Your task to perform on an android device: delete the emails in spam in the gmail app Image 0: 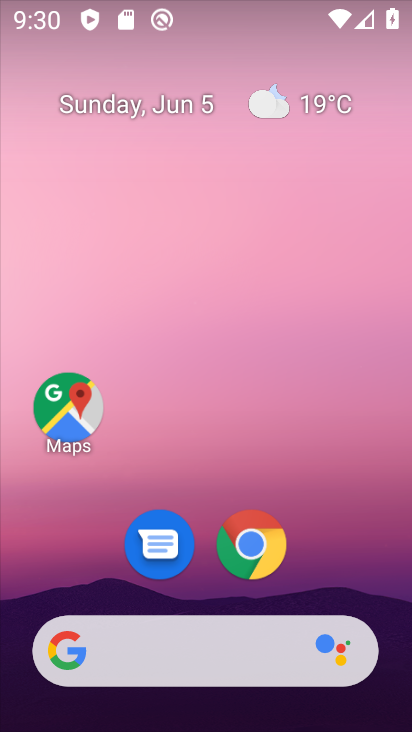
Step 0: press home button
Your task to perform on an android device: delete the emails in spam in the gmail app Image 1: 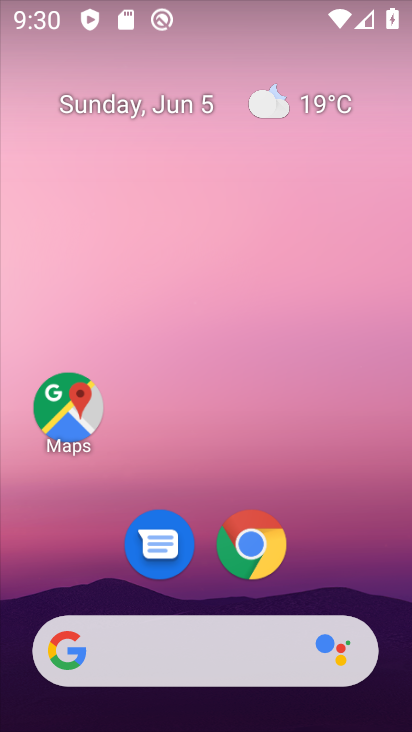
Step 1: press home button
Your task to perform on an android device: delete the emails in spam in the gmail app Image 2: 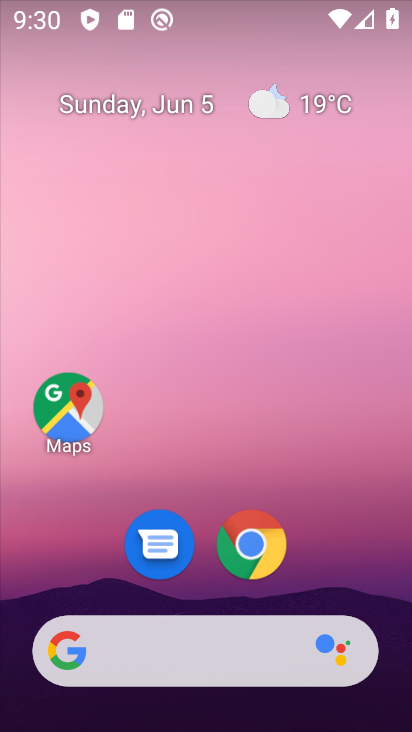
Step 2: drag from (359, 718) to (378, 70)
Your task to perform on an android device: delete the emails in spam in the gmail app Image 3: 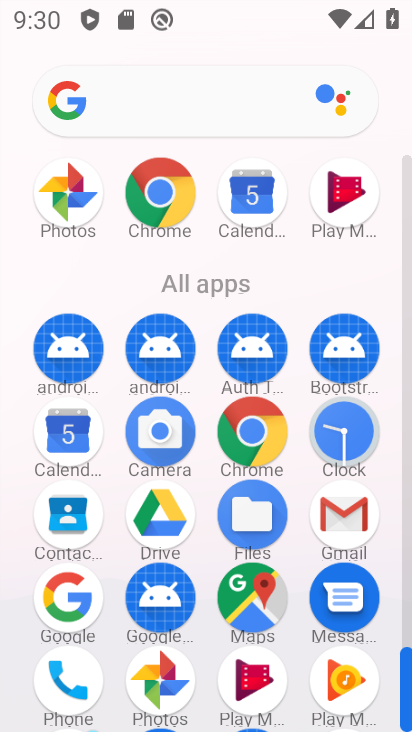
Step 3: click (350, 514)
Your task to perform on an android device: delete the emails in spam in the gmail app Image 4: 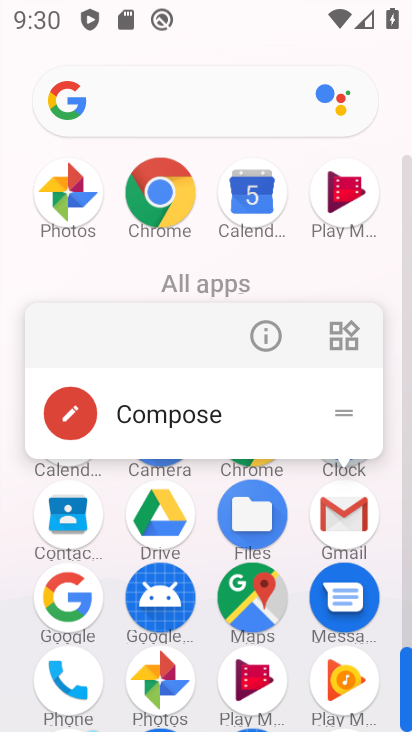
Step 4: click (342, 509)
Your task to perform on an android device: delete the emails in spam in the gmail app Image 5: 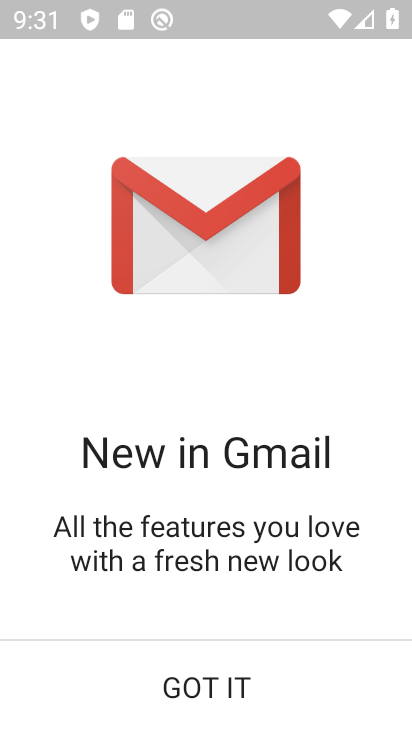
Step 5: click (167, 647)
Your task to perform on an android device: delete the emails in spam in the gmail app Image 6: 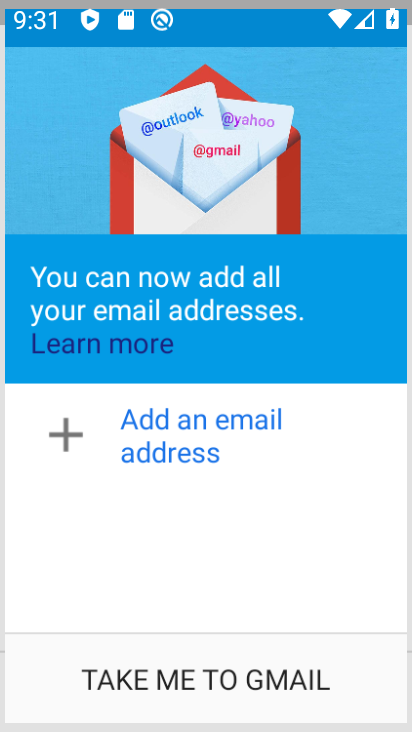
Step 6: click (167, 647)
Your task to perform on an android device: delete the emails in spam in the gmail app Image 7: 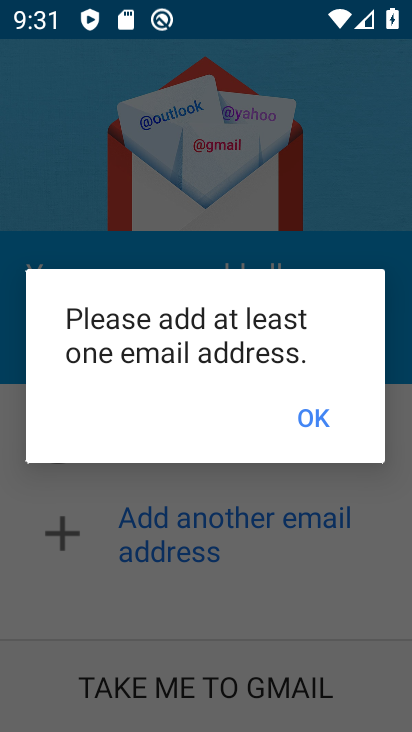
Step 7: click (317, 403)
Your task to perform on an android device: delete the emails in spam in the gmail app Image 8: 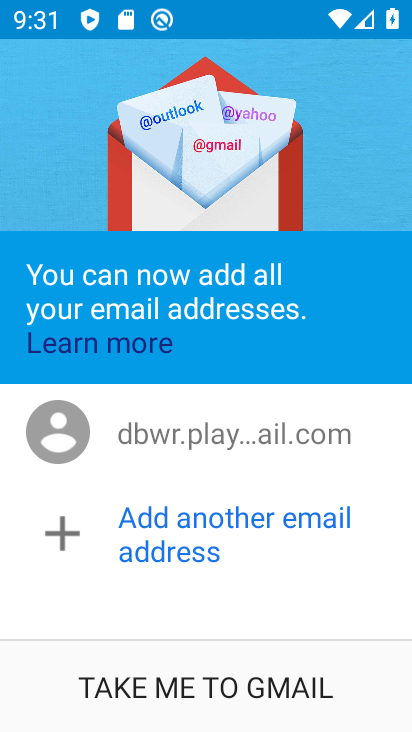
Step 8: click (318, 662)
Your task to perform on an android device: delete the emails in spam in the gmail app Image 9: 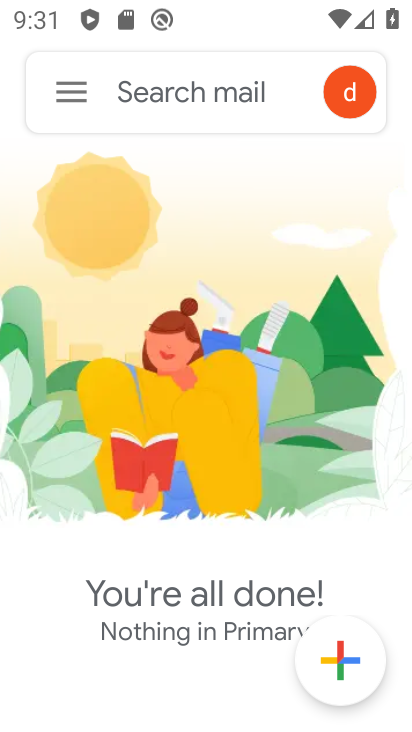
Step 9: click (75, 91)
Your task to perform on an android device: delete the emails in spam in the gmail app Image 10: 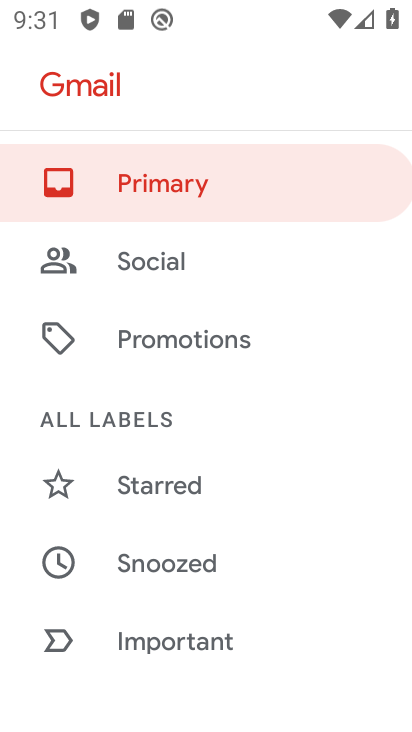
Step 10: task complete